Your task to perform on an android device: visit the assistant section in the google photos Image 0: 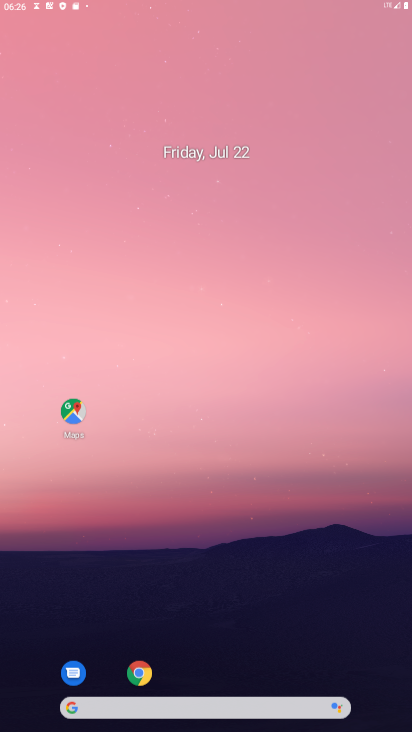
Step 0: press home button
Your task to perform on an android device: visit the assistant section in the google photos Image 1: 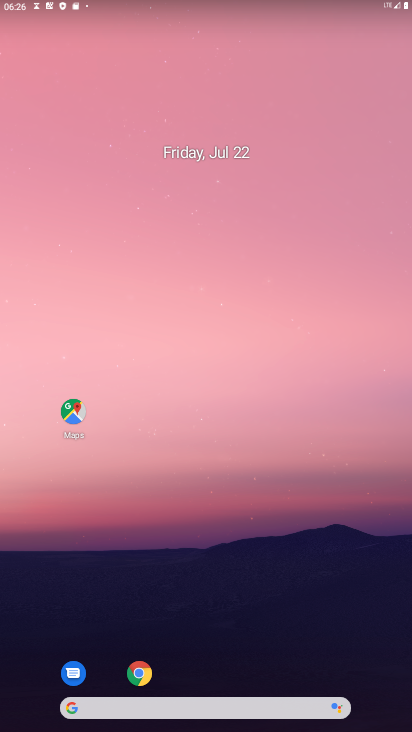
Step 1: drag from (202, 668) to (207, 196)
Your task to perform on an android device: visit the assistant section in the google photos Image 2: 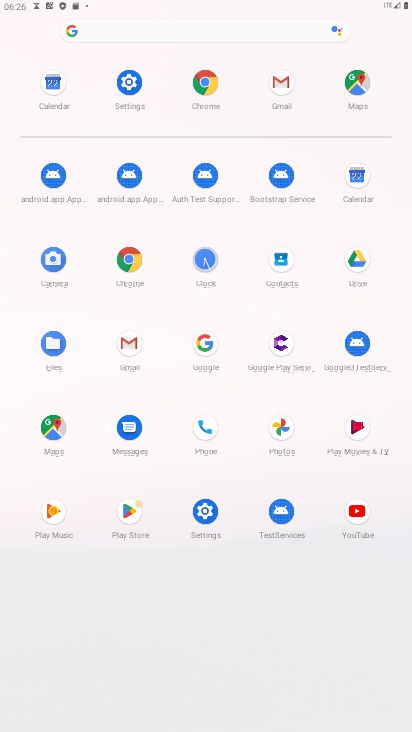
Step 2: click (281, 426)
Your task to perform on an android device: visit the assistant section in the google photos Image 3: 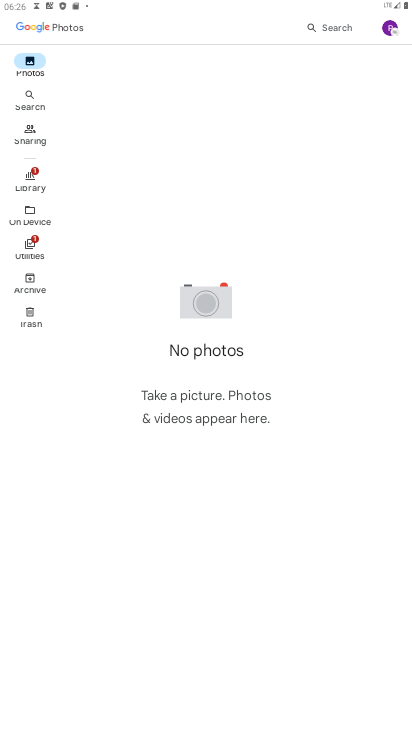
Step 3: click (394, 26)
Your task to perform on an android device: visit the assistant section in the google photos Image 4: 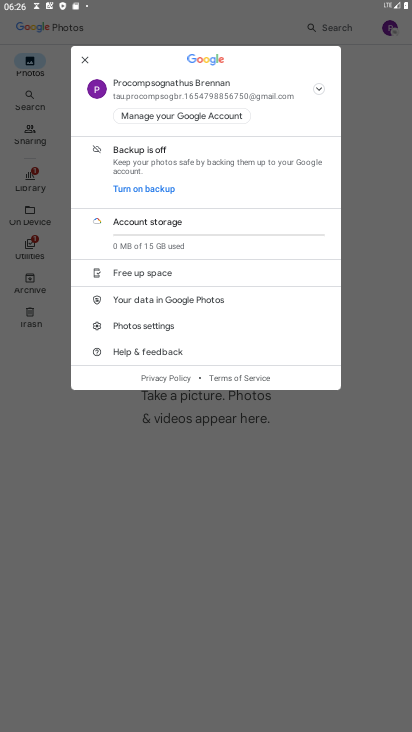
Step 4: click (191, 508)
Your task to perform on an android device: visit the assistant section in the google photos Image 5: 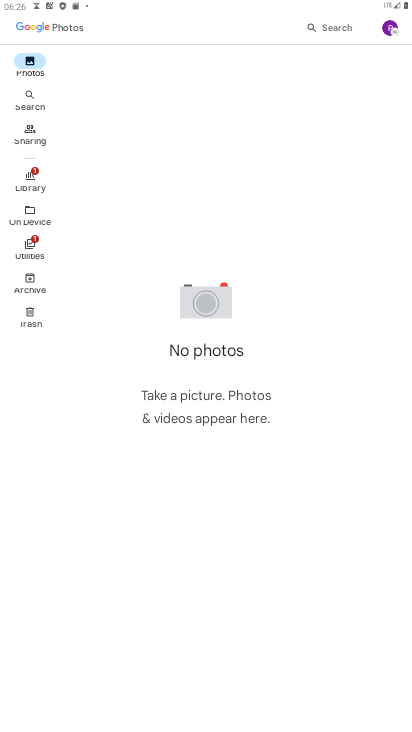
Step 5: task complete